Your task to perform on an android device: find snoozed emails in the gmail app Image 0: 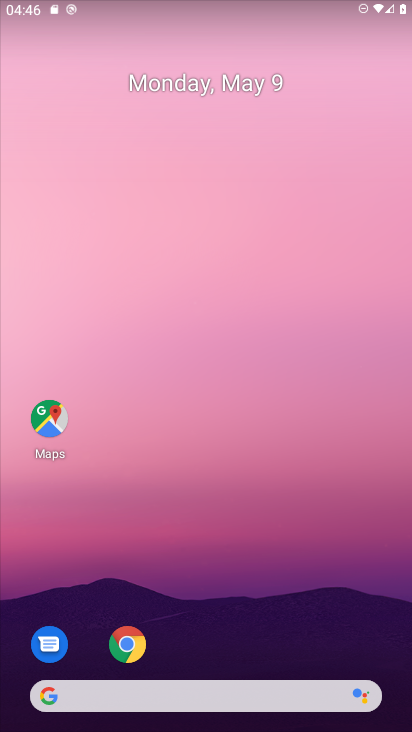
Step 0: drag from (259, 614) to (328, 75)
Your task to perform on an android device: find snoozed emails in the gmail app Image 1: 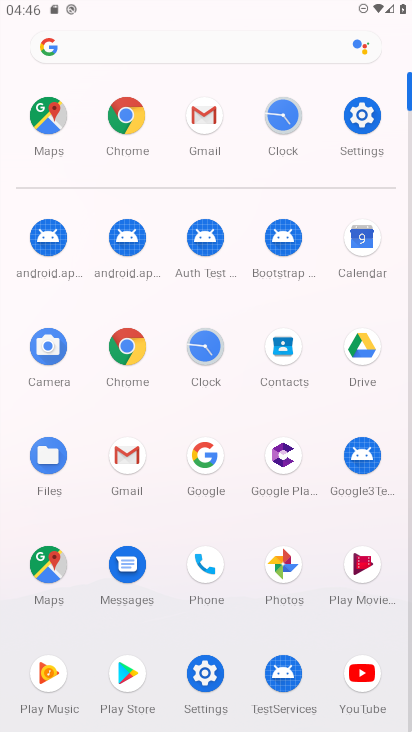
Step 1: click (205, 112)
Your task to perform on an android device: find snoozed emails in the gmail app Image 2: 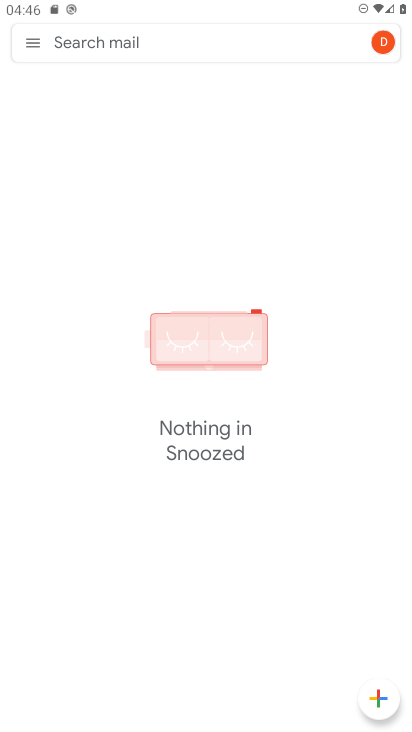
Step 2: click (34, 39)
Your task to perform on an android device: find snoozed emails in the gmail app Image 3: 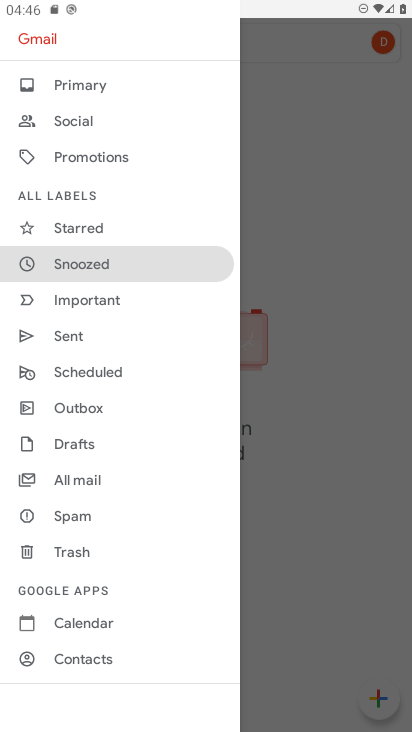
Step 3: click (106, 260)
Your task to perform on an android device: find snoozed emails in the gmail app Image 4: 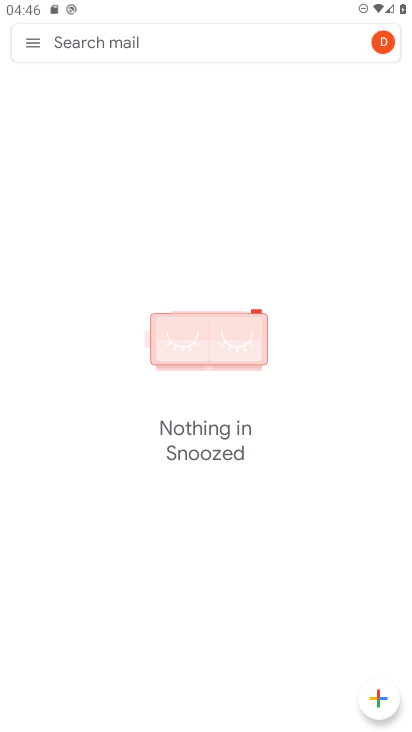
Step 4: task complete